Your task to perform on an android device: change keyboard looks Image 0: 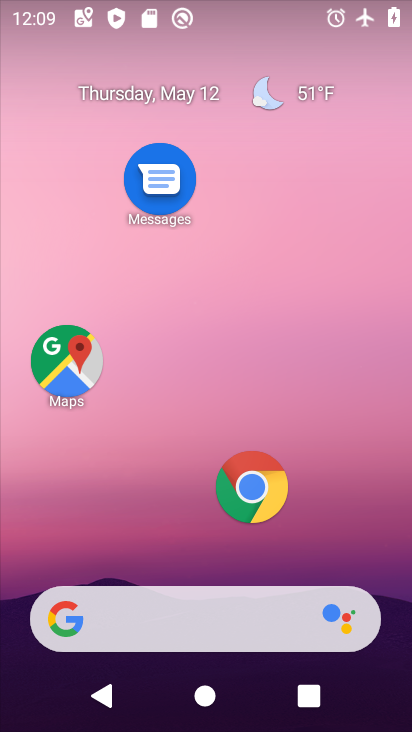
Step 0: drag from (197, 558) to (233, 45)
Your task to perform on an android device: change keyboard looks Image 1: 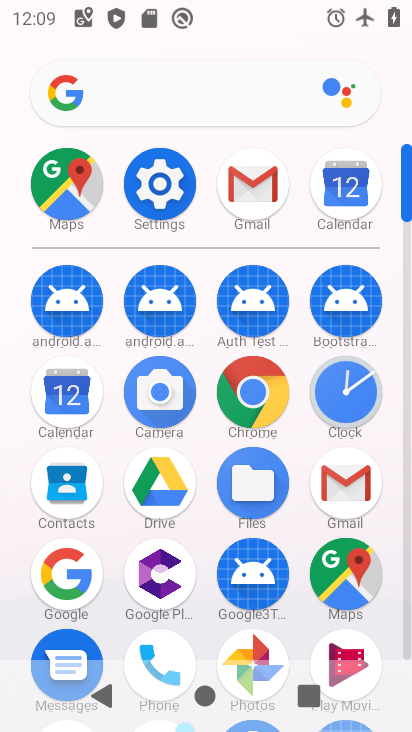
Step 1: click (164, 157)
Your task to perform on an android device: change keyboard looks Image 2: 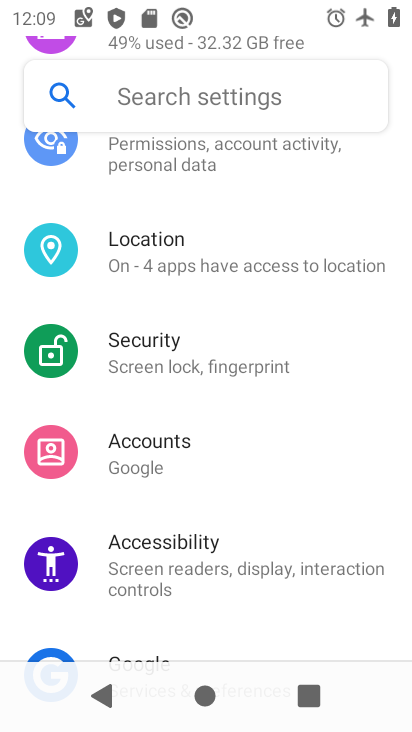
Step 2: drag from (225, 532) to (236, 230)
Your task to perform on an android device: change keyboard looks Image 3: 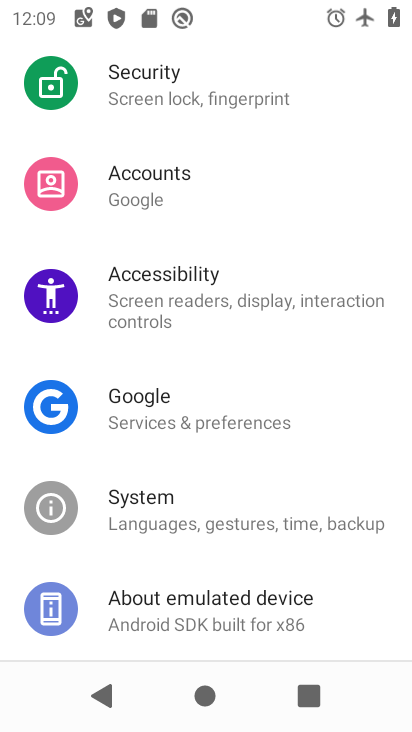
Step 3: drag from (189, 550) to (254, 180)
Your task to perform on an android device: change keyboard looks Image 4: 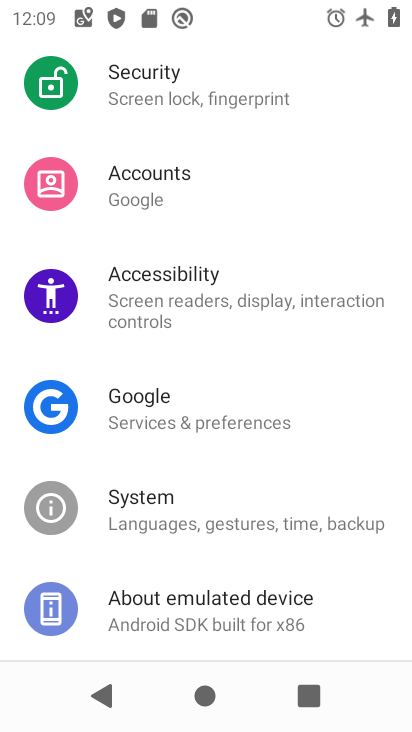
Step 4: click (172, 511)
Your task to perform on an android device: change keyboard looks Image 5: 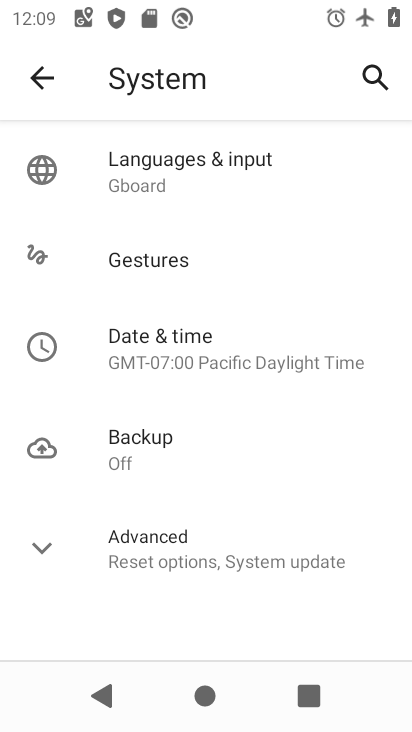
Step 5: click (227, 177)
Your task to perform on an android device: change keyboard looks Image 6: 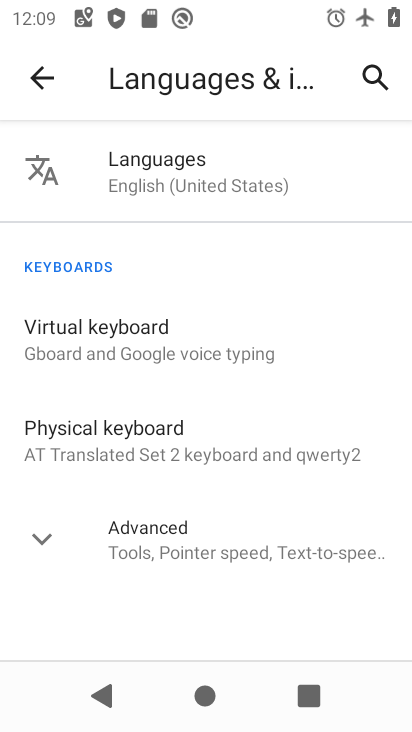
Step 6: click (197, 331)
Your task to perform on an android device: change keyboard looks Image 7: 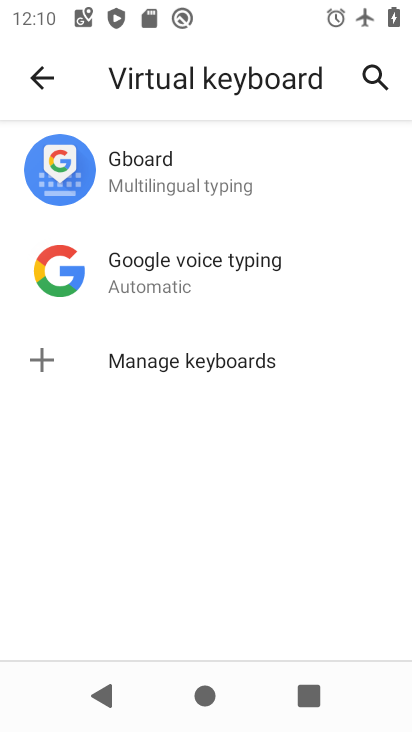
Step 7: click (181, 187)
Your task to perform on an android device: change keyboard looks Image 8: 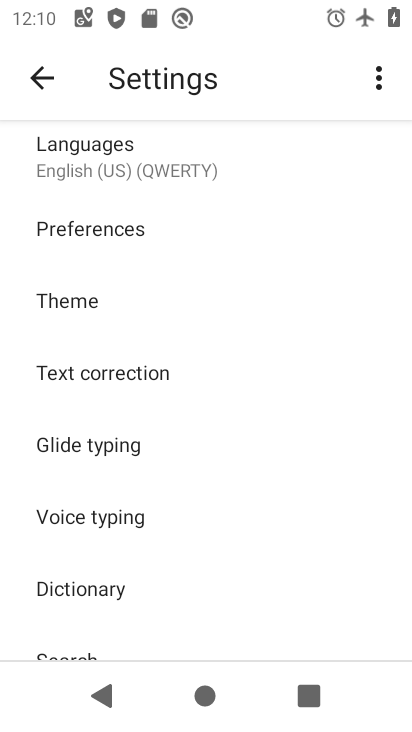
Step 8: click (95, 290)
Your task to perform on an android device: change keyboard looks Image 9: 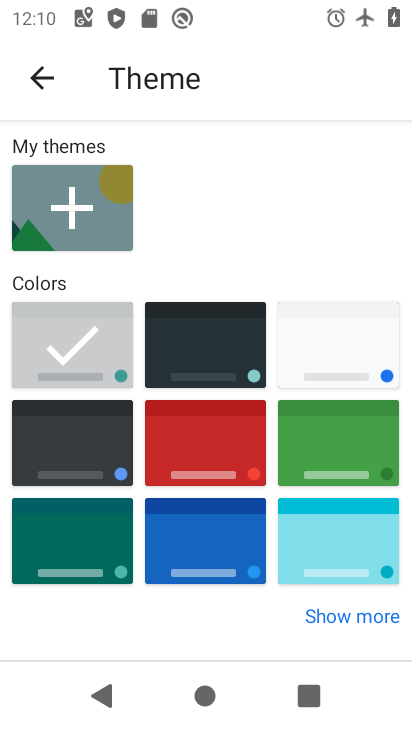
Step 9: click (283, 356)
Your task to perform on an android device: change keyboard looks Image 10: 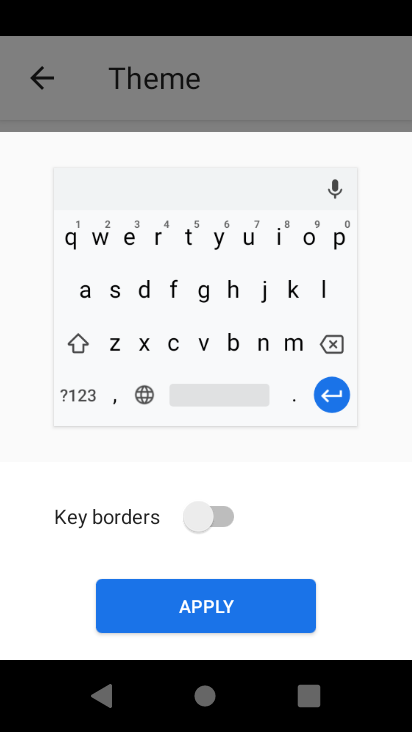
Step 10: click (253, 598)
Your task to perform on an android device: change keyboard looks Image 11: 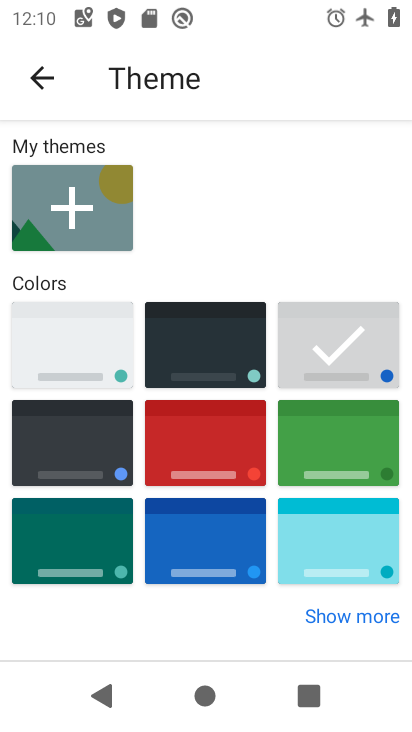
Step 11: task complete